Your task to perform on an android device: toggle wifi Image 0: 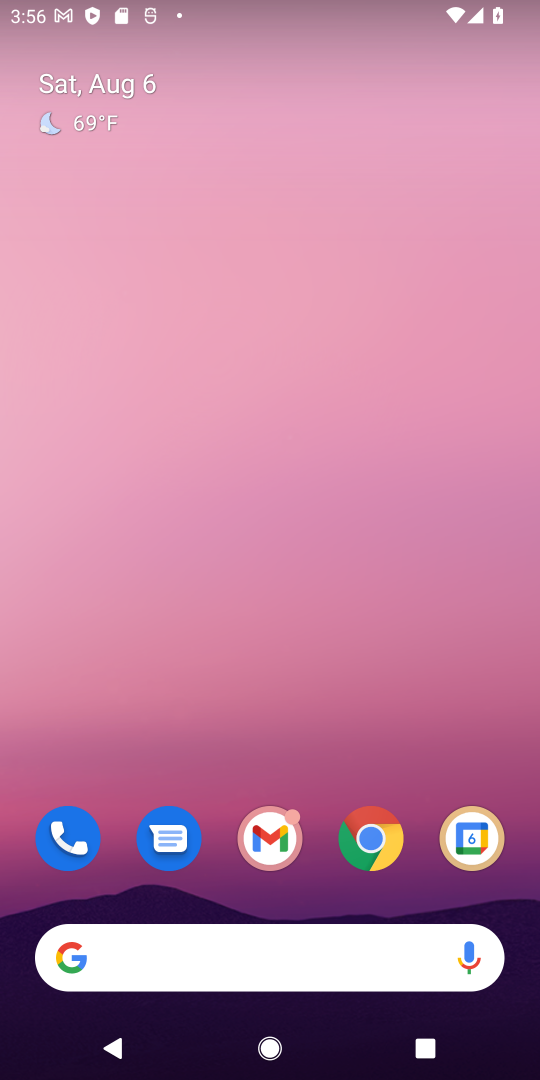
Step 0: drag from (53, 663) to (260, 185)
Your task to perform on an android device: toggle wifi Image 1: 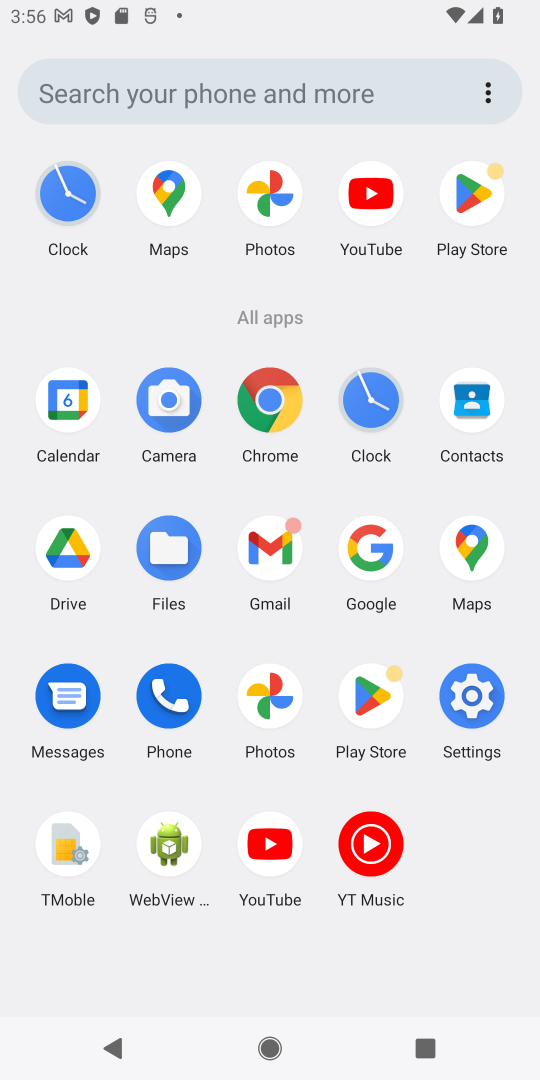
Step 1: click (471, 705)
Your task to perform on an android device: toggle wifi Image 2: 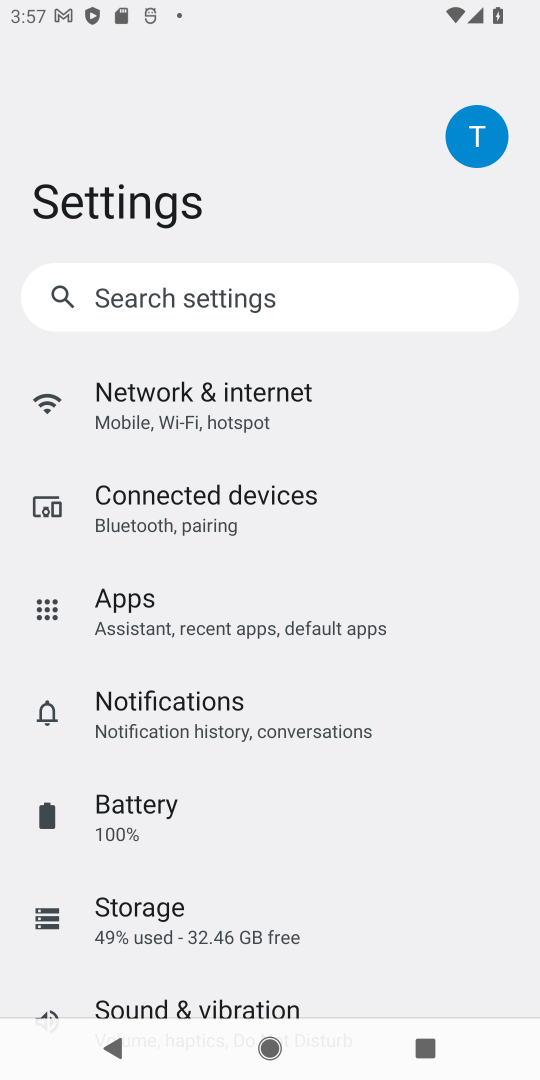
Step 2: click (263, 400)
Your task to perform on an android device: toggle wifi Image 3: 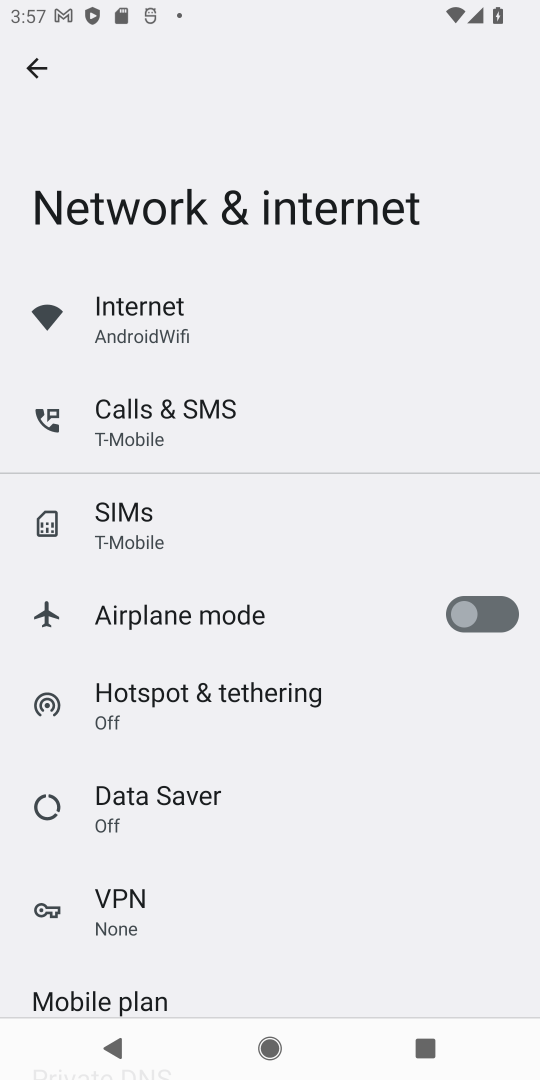
Step 3: click (255, 326)
Your task to perform on an android device: toggle wifi Image 4: 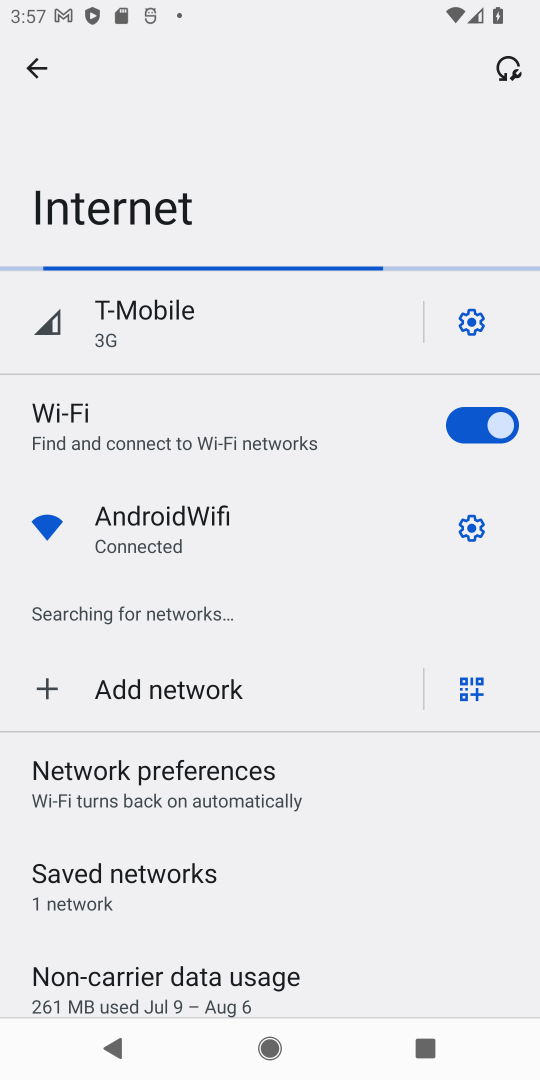
Step 4: press back button
Your task to perform on an android device: toggle wifi Image 5: 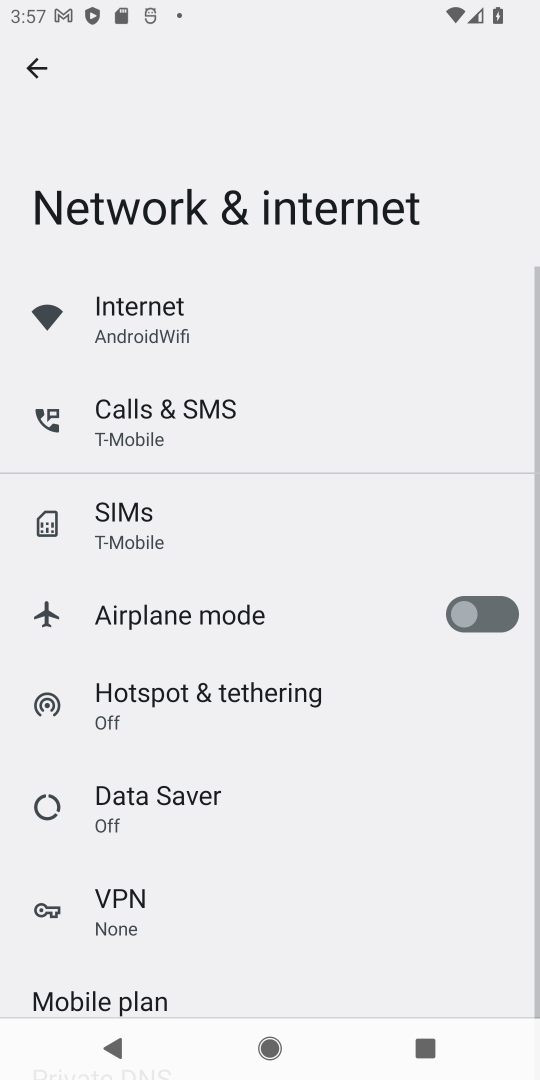
Step 5: click (123, 319)
Your task to perform on an android device: toggle wifi Image 6: 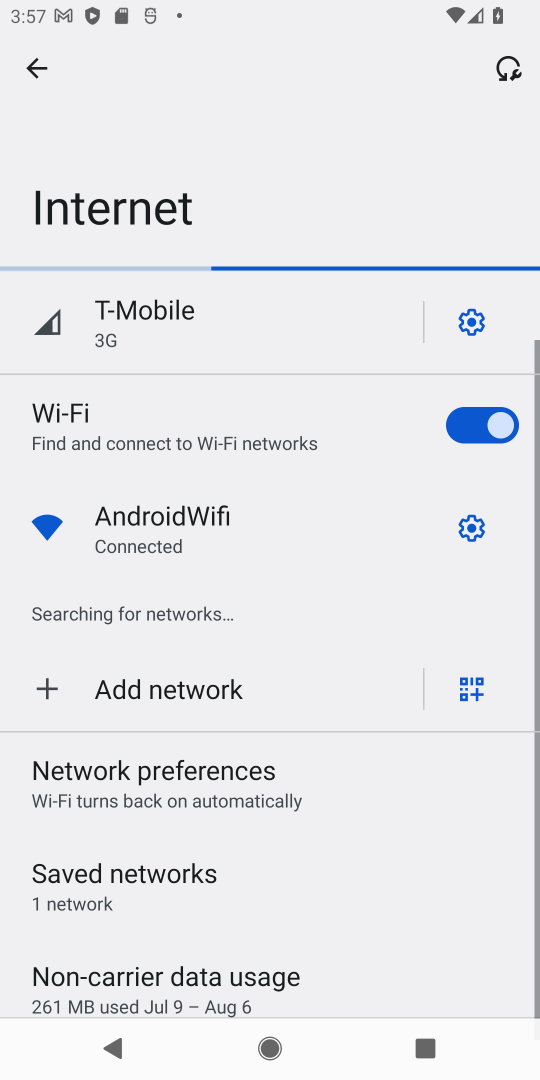
Step 6: click (513, 434)
Your task to perform on an android device: toggle wifi Image 7: 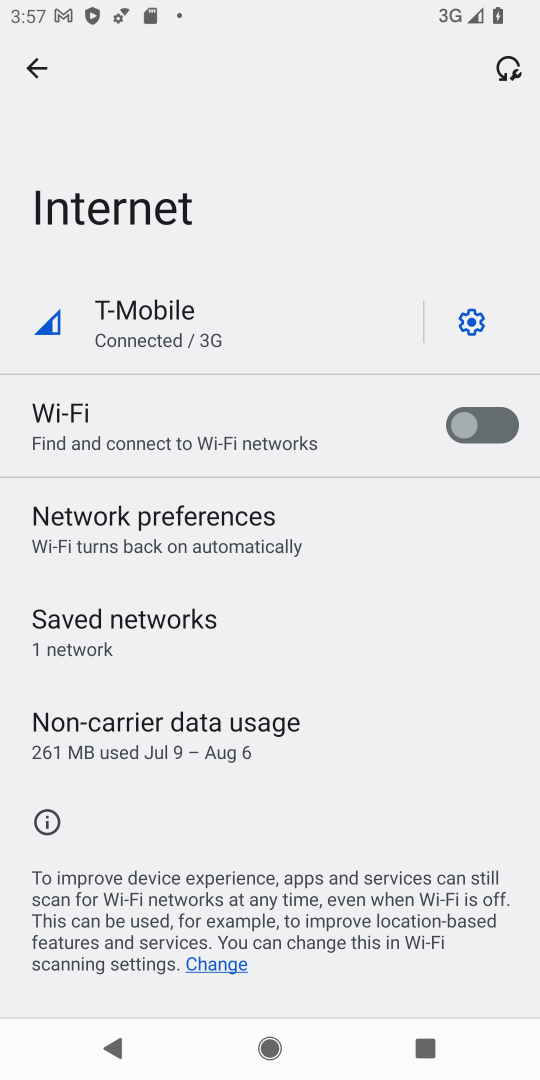
Step 7: task complete